Your task to perform on an android device: Open Android settings Image 0: 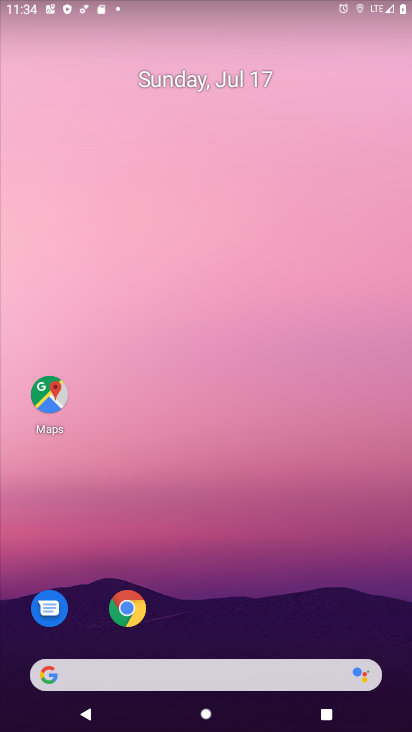
Step 0: drag from (198, 637) to (276, 426)
Your task to perform on an android device: Open Android settings Image 1: 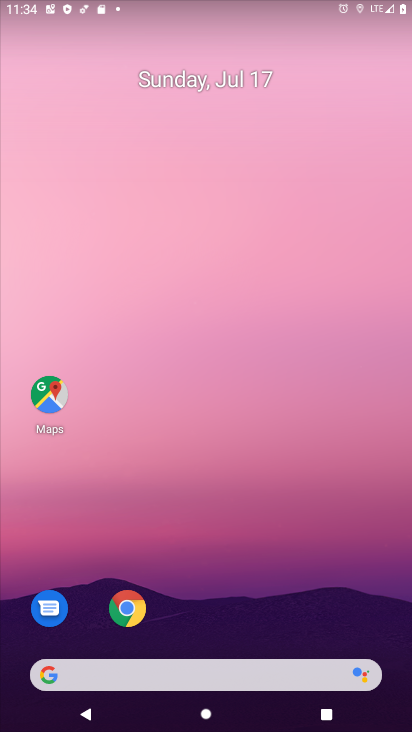
Step 1: drag from (221, 647) to (305, 10)
Your task to perform on an android device: Open Android settings Image 2: 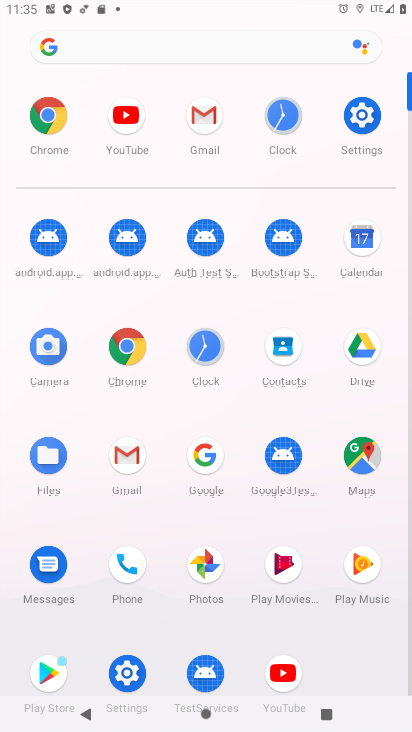
Step 2: click (362, 105)
Your task to perform on an android device: Open Android settings Image 3: 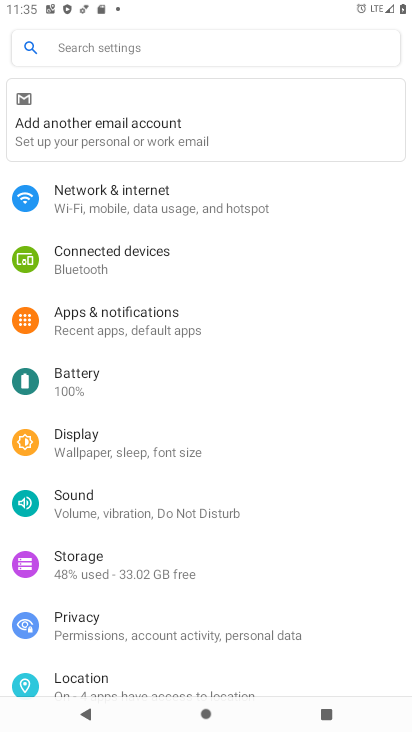
Step 3: click (126, 193)
Your task to perform on an android device: Open Android settings Image 4: 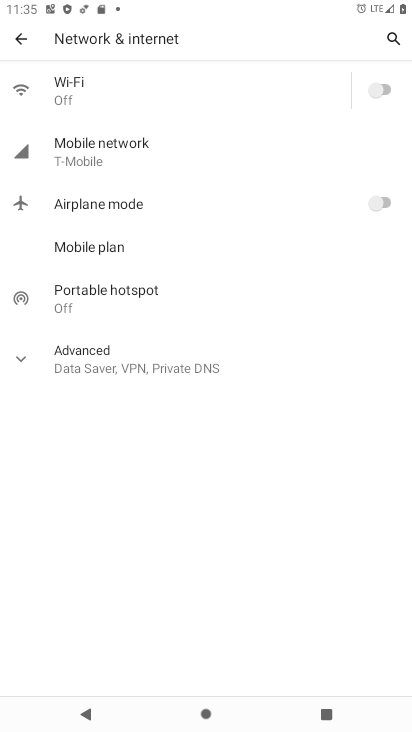
Step 4: task complete